Your task to perform on an android device: open a bookmark in the chrome app Image 0: 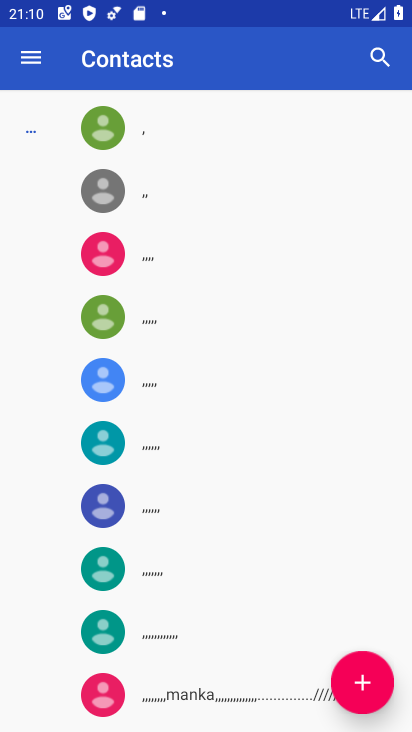
Step 0: click (351, 681)
Your task to perform on an android device: open a bookmark in the chrome app Image 1: 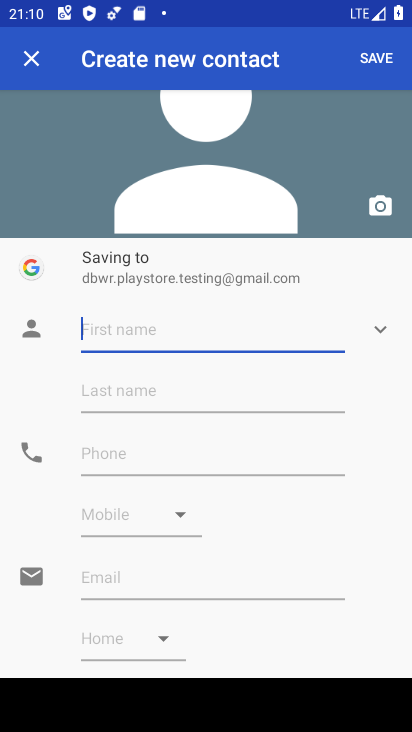
Step 1: click (31, 59)
Your task to perform on an android device: open a bookmark in the chrome app Image 2: 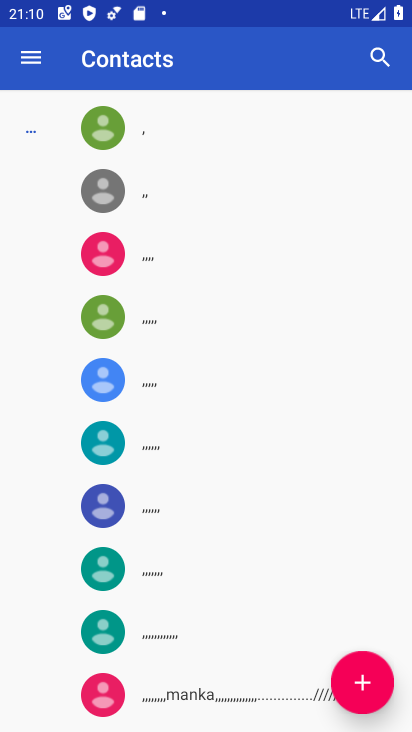
Step 2: press home button
Your task to perform on an android device: open a bookmark in the chrome app Image 3: 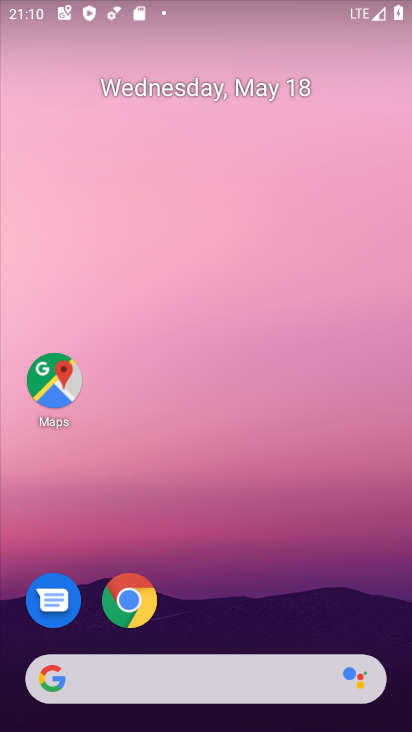
Step 3: click (114, 596)
Your task to perform on an android device: open a bookmark in the chrome app Image 4: 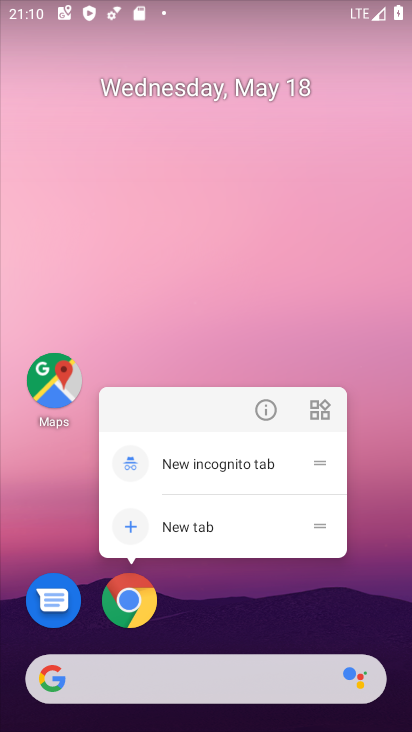
Step 4: click (123, 596)
Your task to perform on an android device: open a bookmark in the chrome app Image 5: 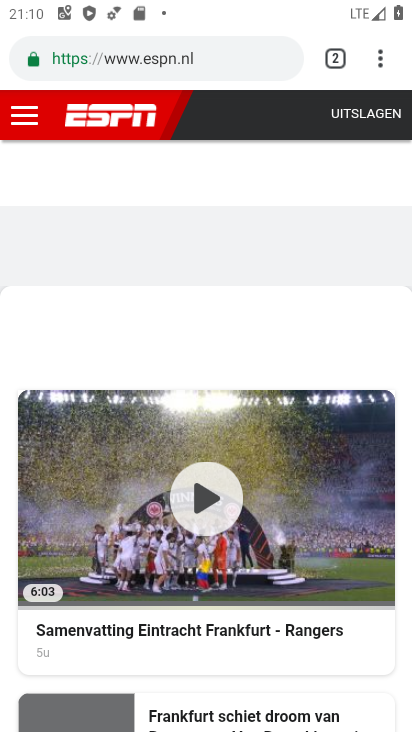
Step 5: drag from (371, 57) to (195, 217)
Your task to perform on an android device: open a bookmark in the chrome app Image 6: 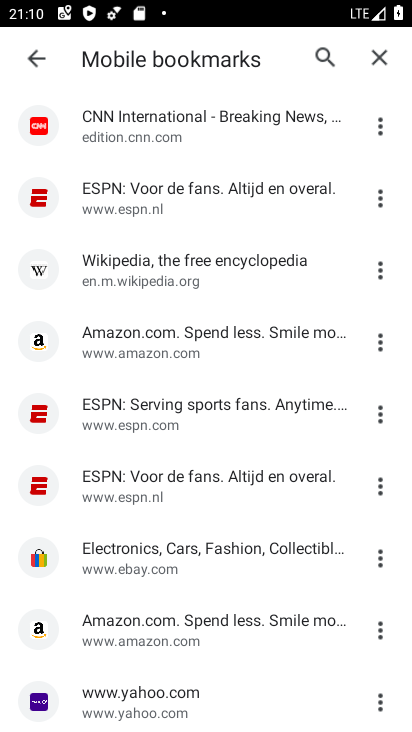
Step 6: click (139, 129)
Your task to perform on an android device: open a bookmark in the chrome app Image 7: 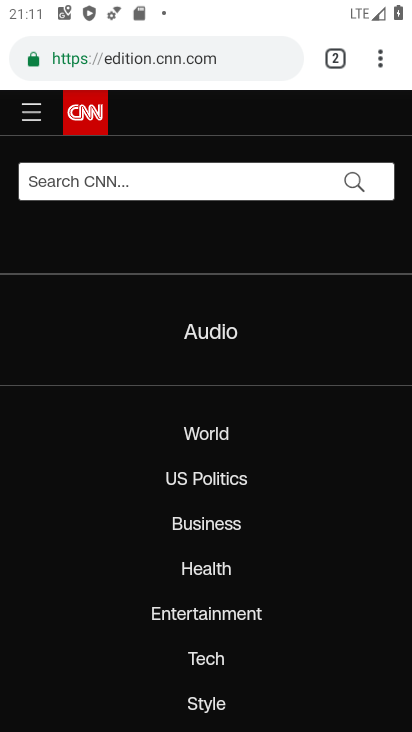
Step 7: task complete